Your task to perform on an android device: Open location settings Image 0: 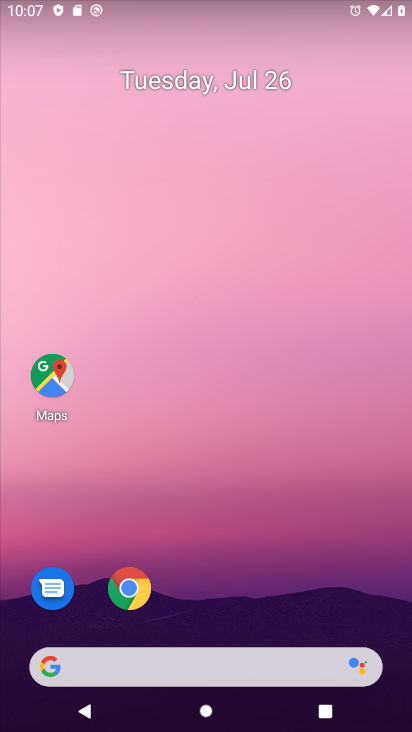
Step 0: drag from (212, 646) to (281, 0)
Your task to perform on an android device: Open location settings Image 1: 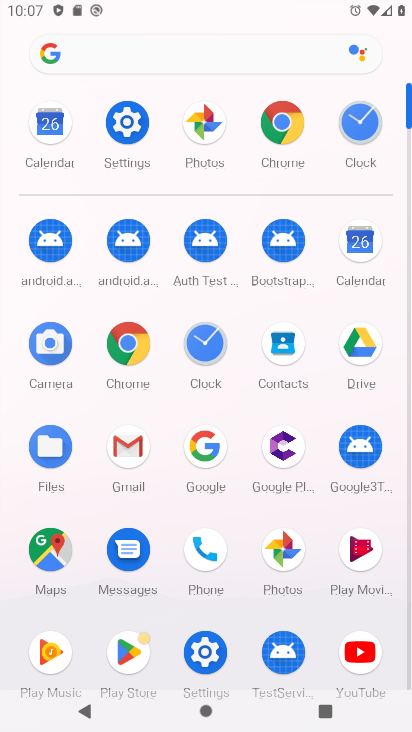
Step 1: click (127, 120)
Your task to perform on an android device: Open location settings Image 2: 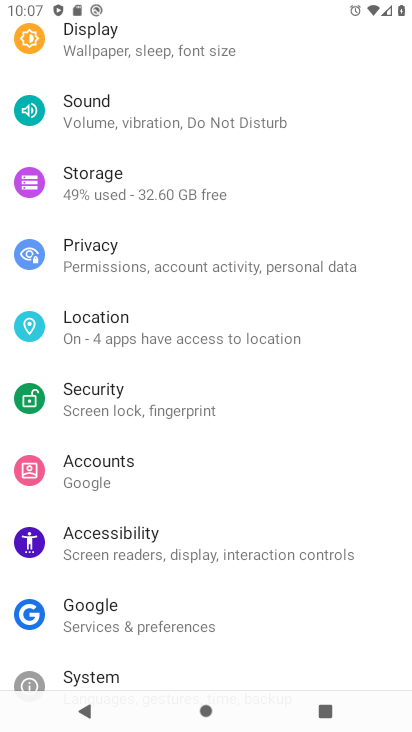
Step 2: click (134, 325)
Your task to perform on an android device: Open location settings Image 3: 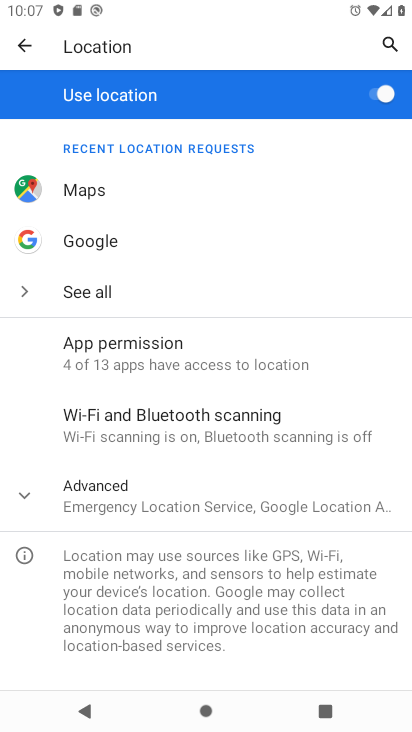
Step 3: task complete